Your task to perform on an android device: change the clock display to digital Image 0: 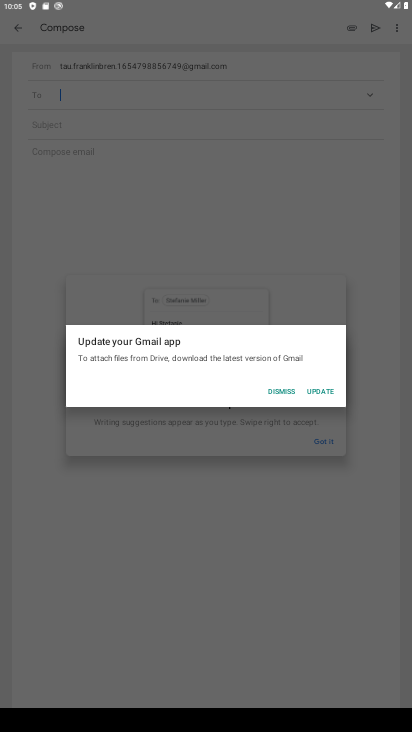
Step 0: press home button
Your task to perform on an android device: change the clock display to digital Image 1: 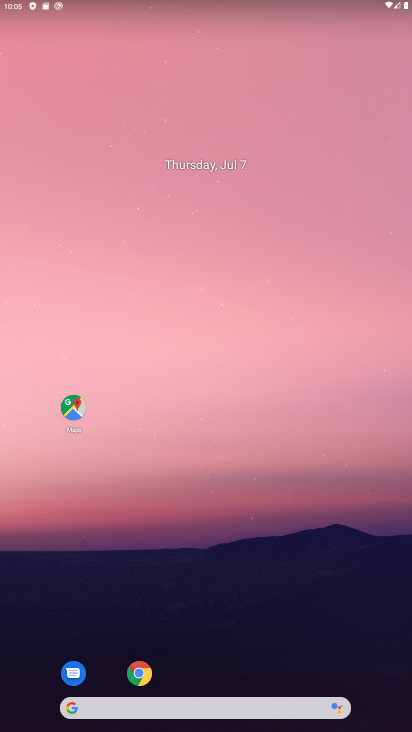
Step 1: drag from (226, 581) to (252, 34)
Your task to perform on an android device: change the clock display to digital Image 2: 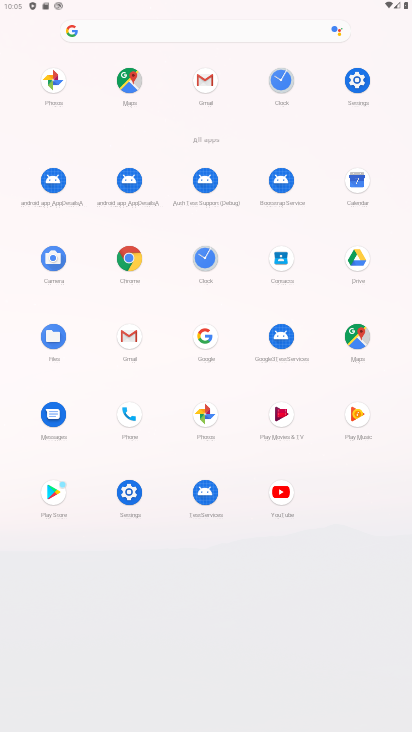
Step 2: click (209, 256)
Your task to perform on an android device: change the clock display to digital Image 3: 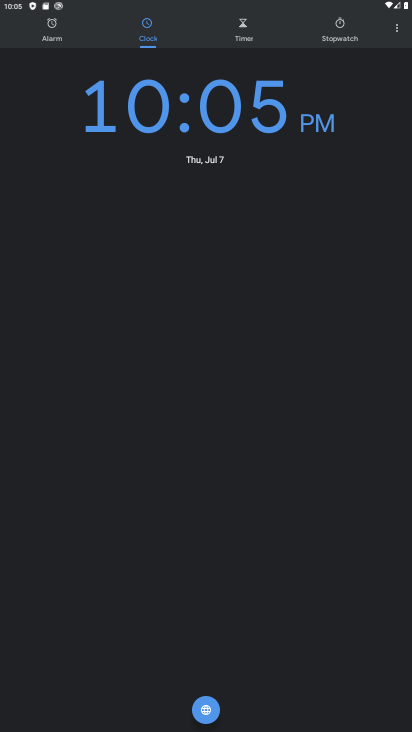
Step 3: click (394, 19)
Your task to perform on an android device: change the clock display to digital Image 4: 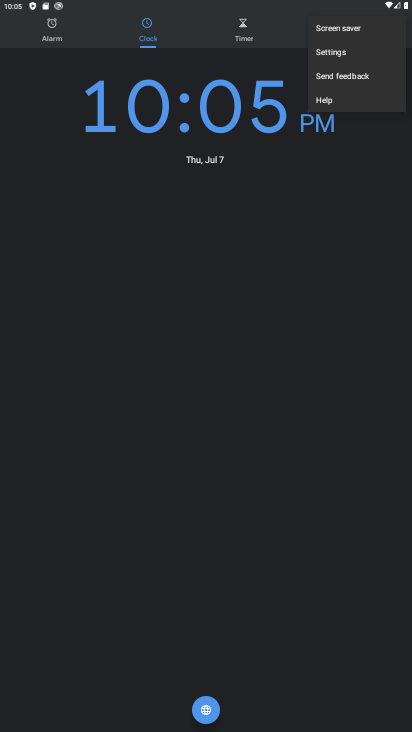
Step 4: click (337, 56)
Your task to perform on an android device: change the clock display to digital Image 5: 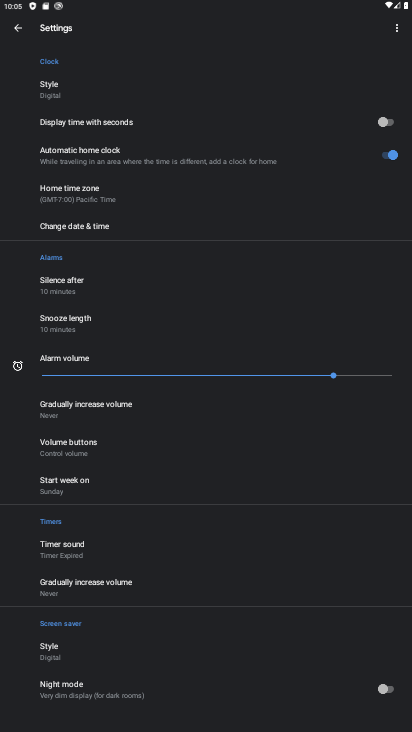
Step 5: click (47, 86)
Your task to perform on an android device: change the clock display to digital Image 6: 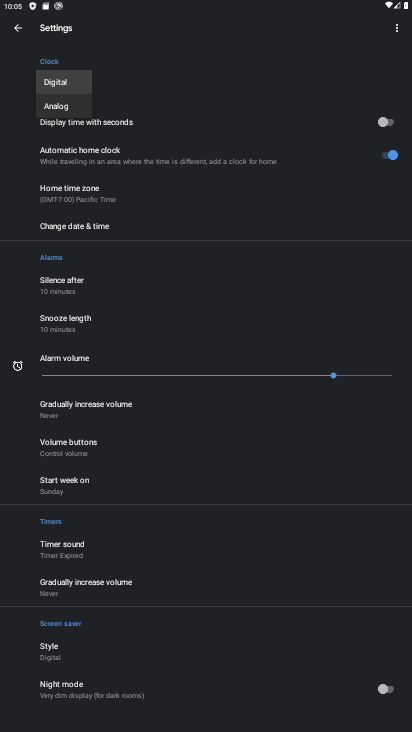
Step 6: task complete